Your task to perform on an android device: change your default location settings in chrome Image 0: 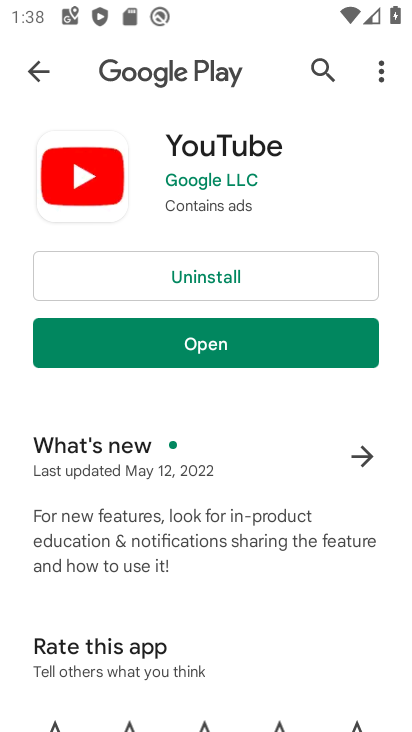
Step 0: press home button
Your task to perform on an android device: change your default location settings in chrome Image 1: 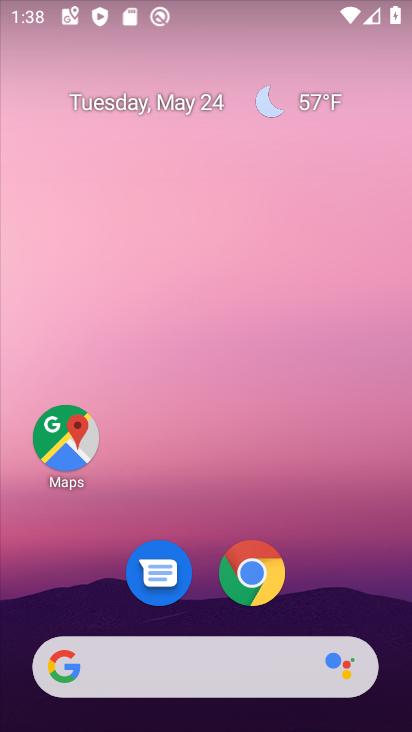
Step 1: click (259, 569)
Your task to perform on an android device: change your default location settings in chrome Image 2: 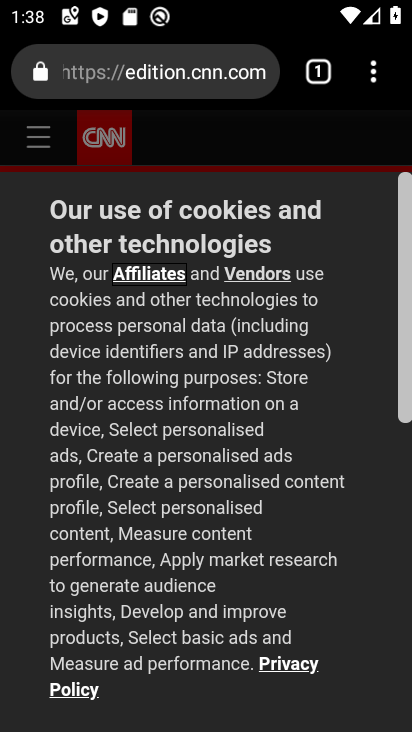
Step 2: click (382, 82)
Your task to perform on an android device: change your default location settings in chrome Image 3: 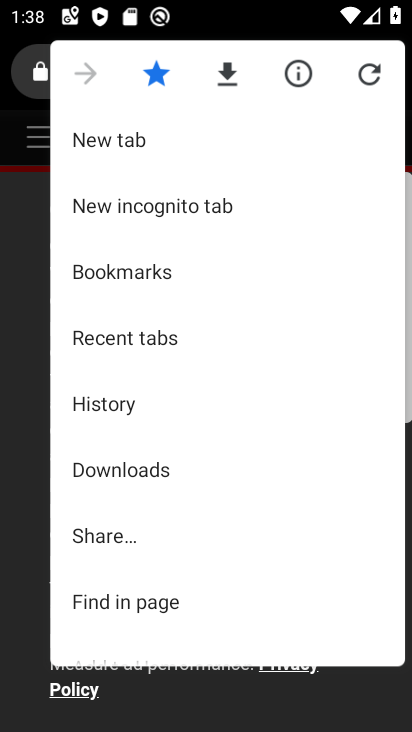
Step 3: drag from (194, 523) to (212, 286)
Your task to perform on an android device: change your default location settings in chrome Image 4: 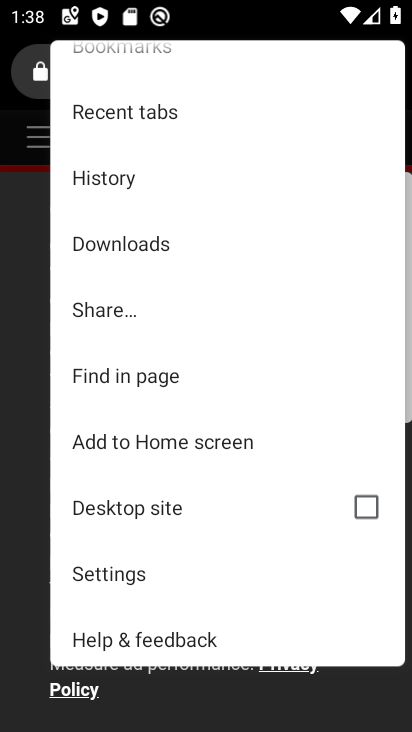
Step 4: click (140, 580)
Your task to perform on an android device: change your default location settings in chrome Image 5: 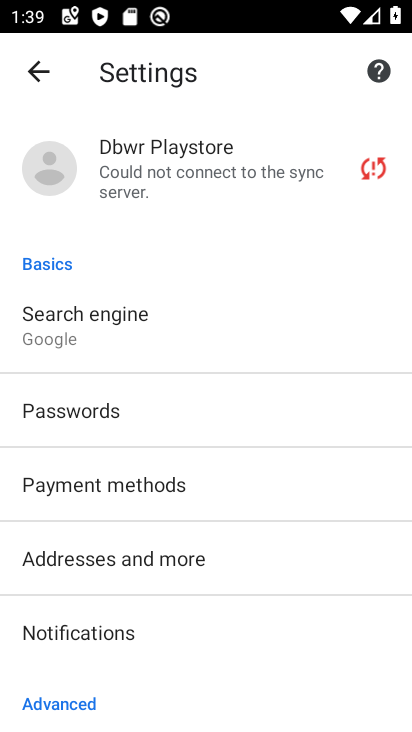
Step 5: drag from (190, 599) to (214, 312)
Your task to perform on an android device: change your default location settings in chrome Image 6: 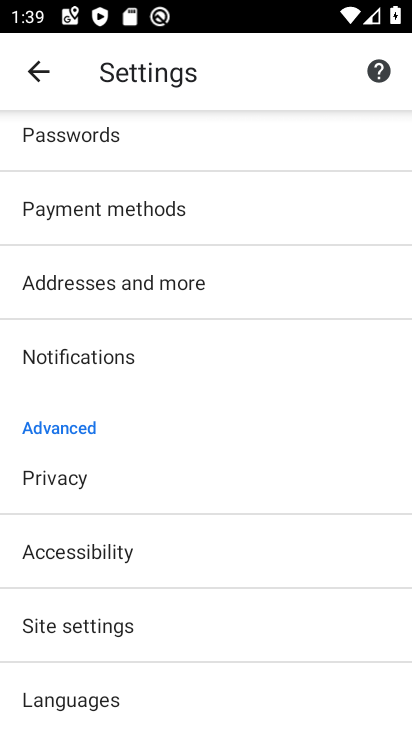
Step 6: click (138, 616)
Your task to perform on an android device: change your default location settings in chrome Image 7: 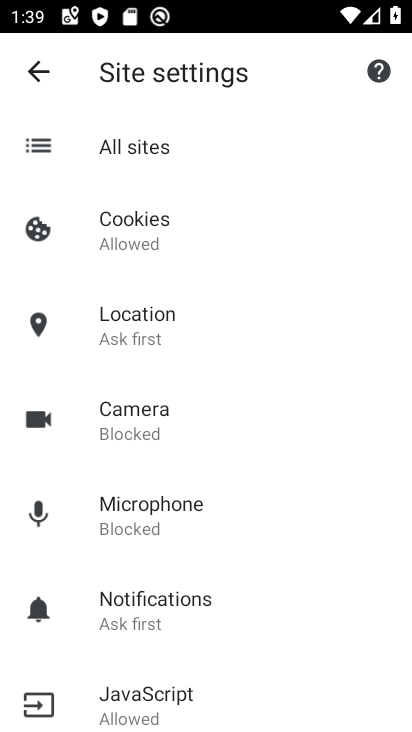
Step 7: click (169, 335)
Your task to perform on an android device: change your default location settings in chrome Image 8: 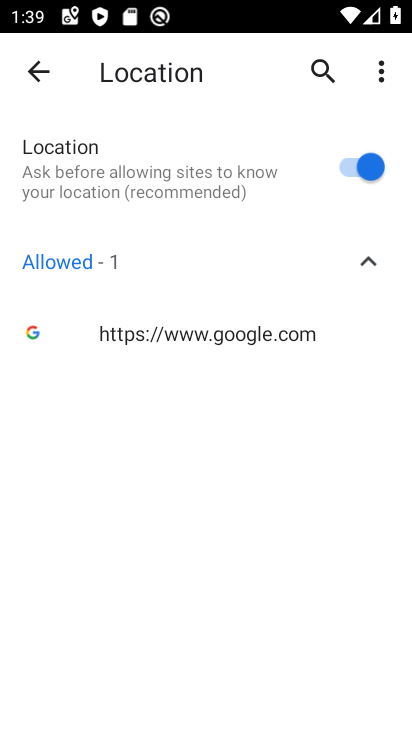
Step 8: click (367, 162)
Your task to perform on an android device: change your default location settings in chrome Image 9: 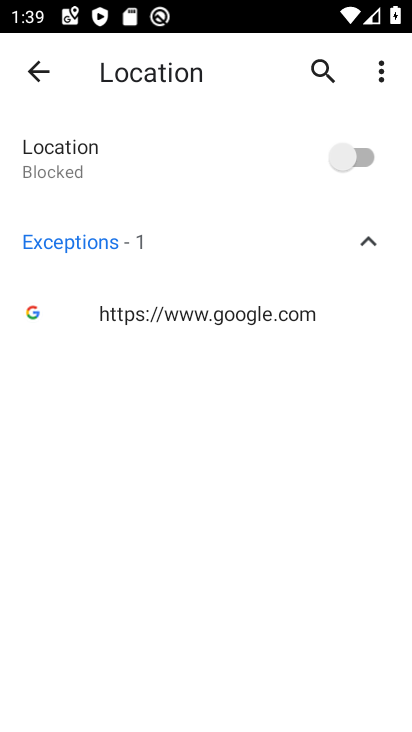
Step 9: task complete